Your task to perform on an android device: Go to CNN.com Image 0: 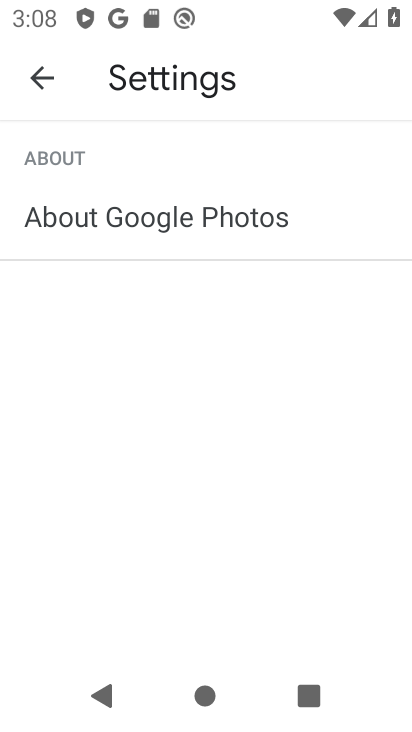
Step 0: press back button
Your task to perform on an android device: Go to CNN.com Image 1: 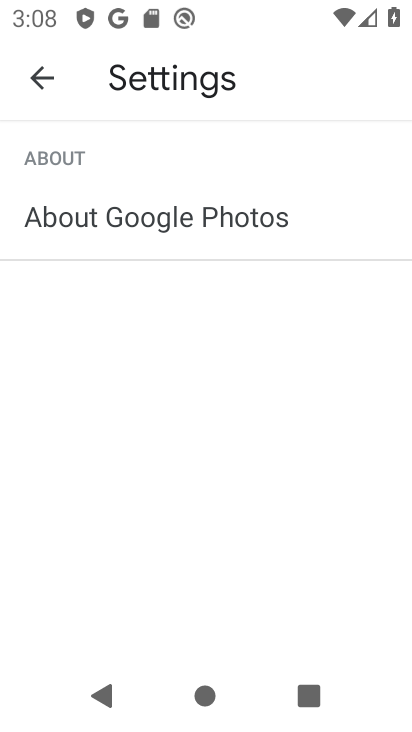
Step 1: press back button
Your task to perform on an android device: Go to CNN.com Image 2: 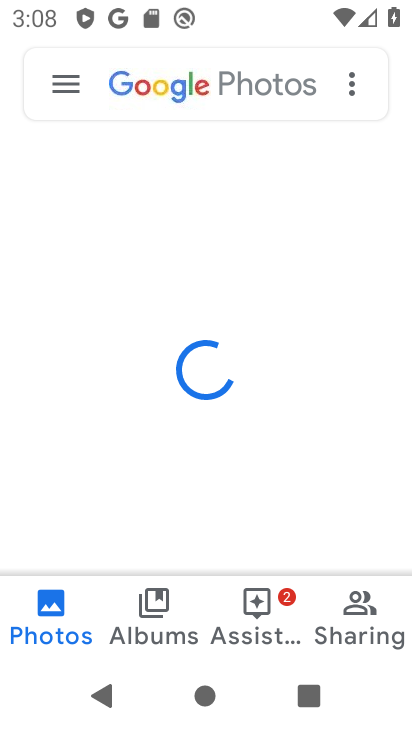
Step 2: press back button
Your task to perform on an android device: Go to CNN.com Image 3: 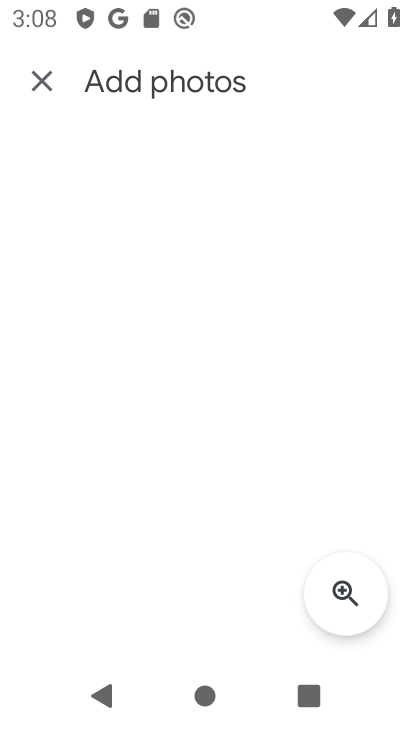
Step 3: press home button
Your task to perform on an android device: Go to CNN.com Image 4: 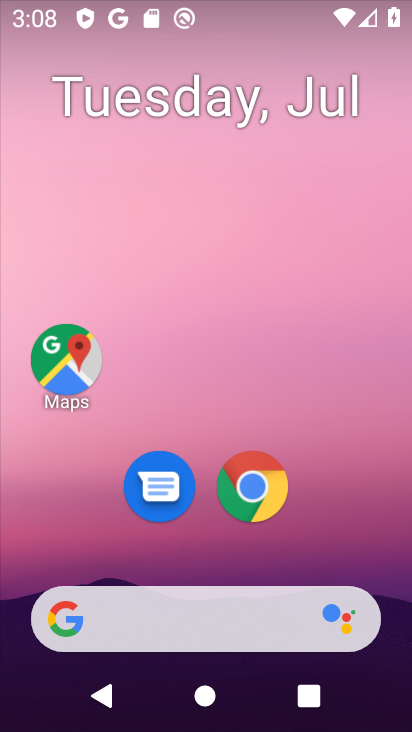
Step 4: click (271, 482)
Your task to perform on an android device: Go to CNN.com Image 5: 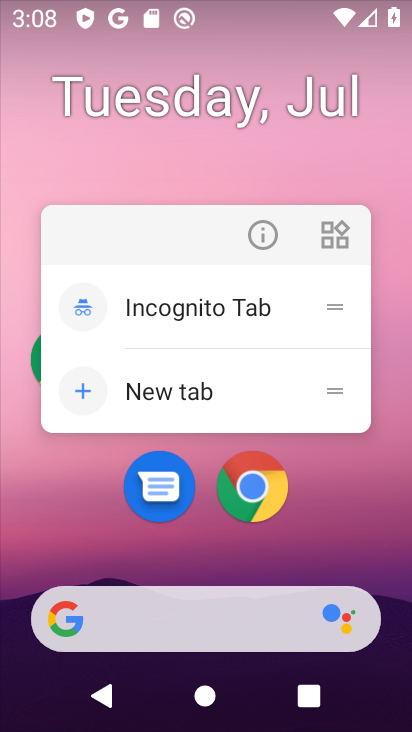
Step 5: click (255, 472)
Your task to perform on an android device: Go to CNN.com Image 6: 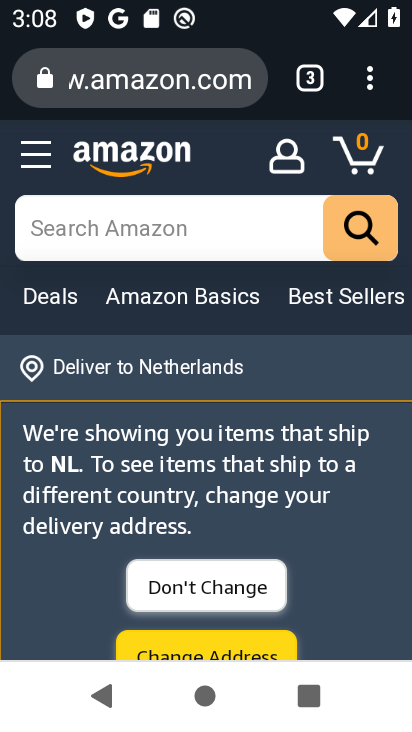
Step 6: click (309, 86)
Your task to perform on an android device: Go to CNN.com Image 7: 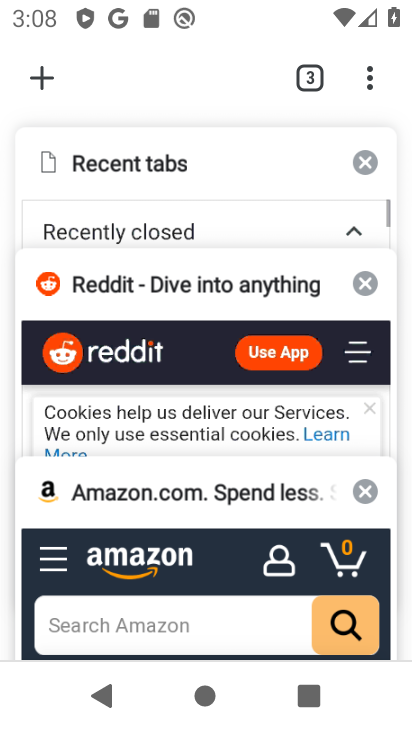
Step 7: click (39, 63)
Your task to perform on an android device: Go to CNN.com Image 8: 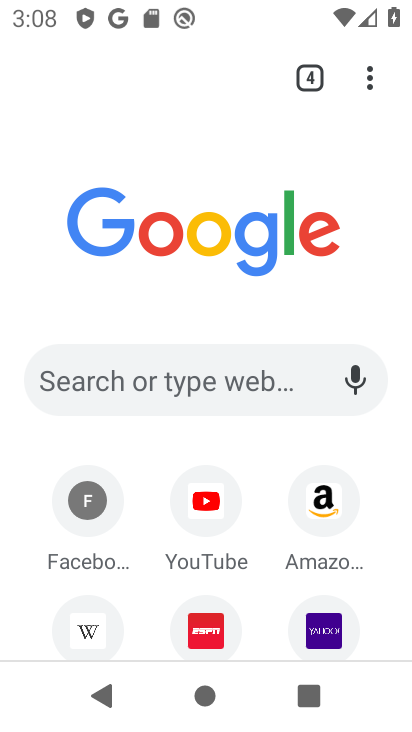
Step 8: drag from (209, 619) to (269, 300)
Your task to perform on an android device: Go to CNN.com Image 9: 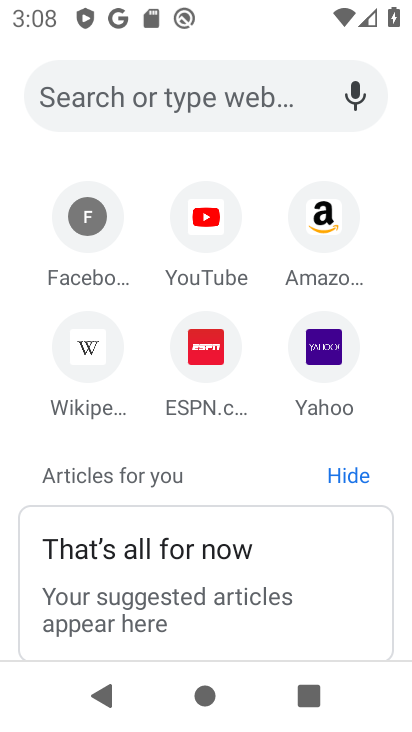
Step 9: click (137, 87)
Your task to perform on an android device: Go to CNN.com Image 10: 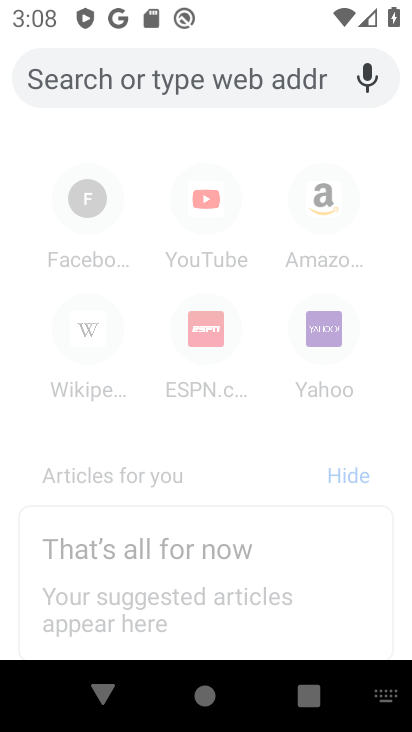
Step 10: type "cnn.com"
Your task to perform on an android device: Go to CNN.com Image 11: 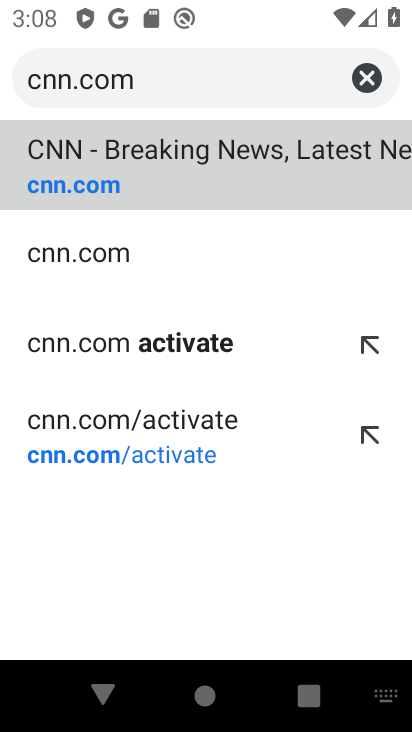
Step 11: click (152, 164)
Your task to perform on an android device: Go to CNN.com Image 12: 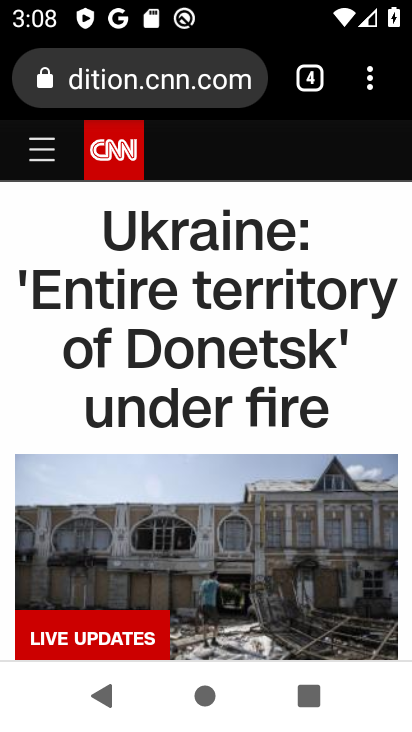
Step 12: task complete